Your task to perform on an android device: change the clock display to analog Image 0: 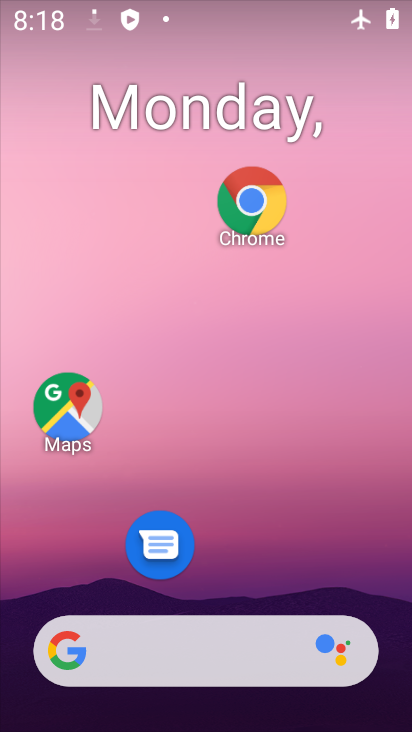
Step 0: drag from (229, 567) to (247, 124)
Your task to perform on an android device: change the clock display to analog Image 1: 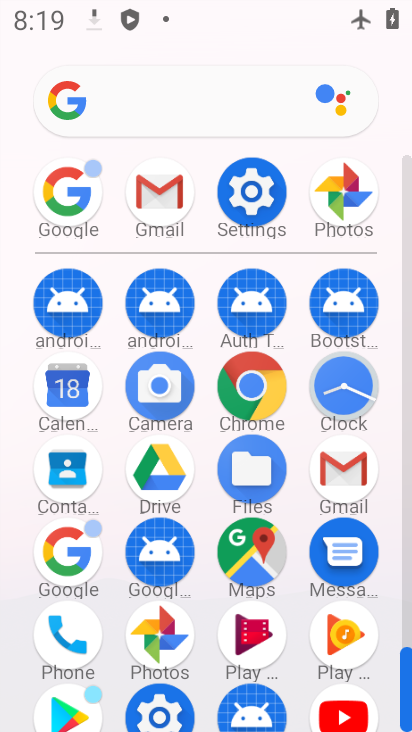
Step 1: click (322, 381)
Your task to perform on an android device: change the clock display to analog Image 2: 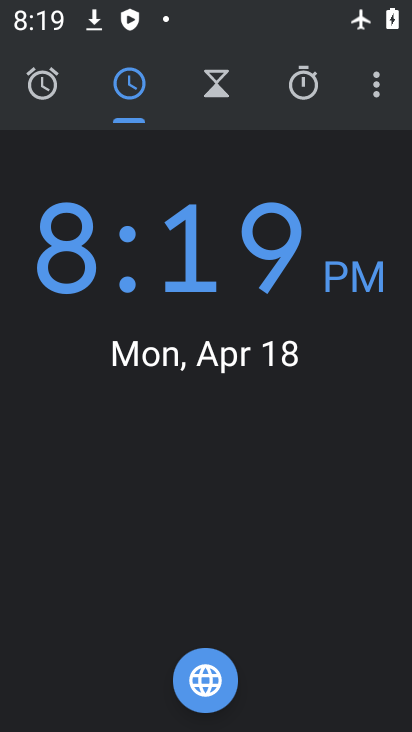
Step 2: click (373, 86)
Your task to perform on an android device: change the clock display to analog Image 3: 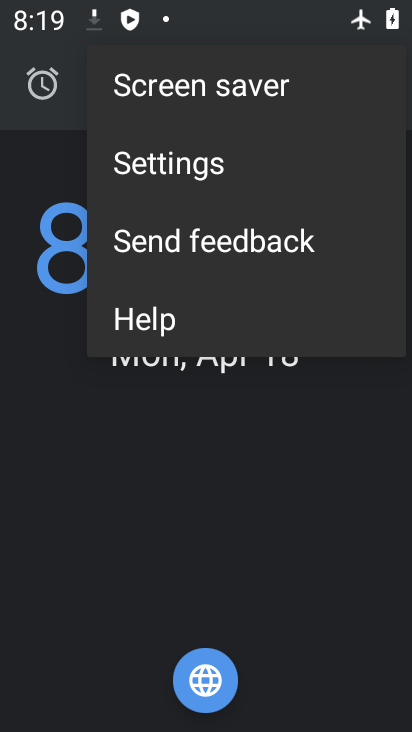
Step 3: click (185, 152)
Your task to perform on an android device: change the clock display to analog Image 4: 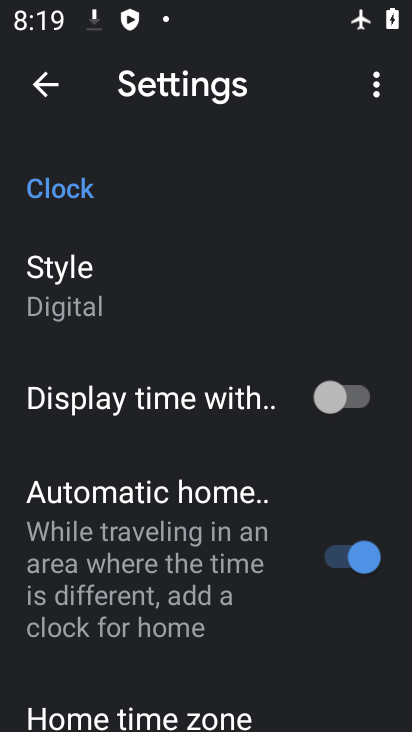
Step 4: click (121, 266)
Your task to perform on an android device: change the clock display to analog Image 5: 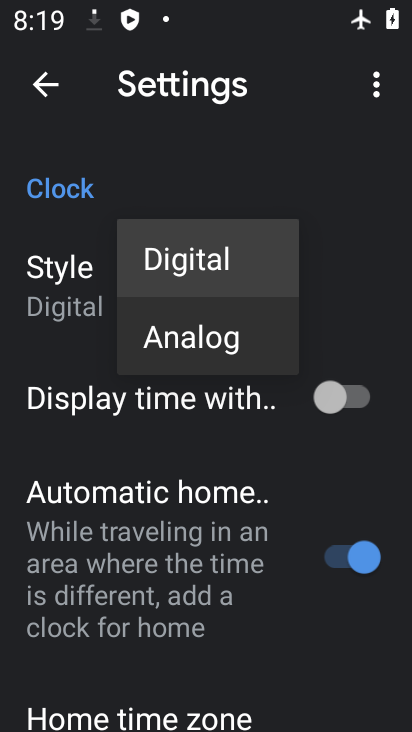
Step 5: click (204, 323)
Your task to perform on an android device: change the clock display to analog Image 6: 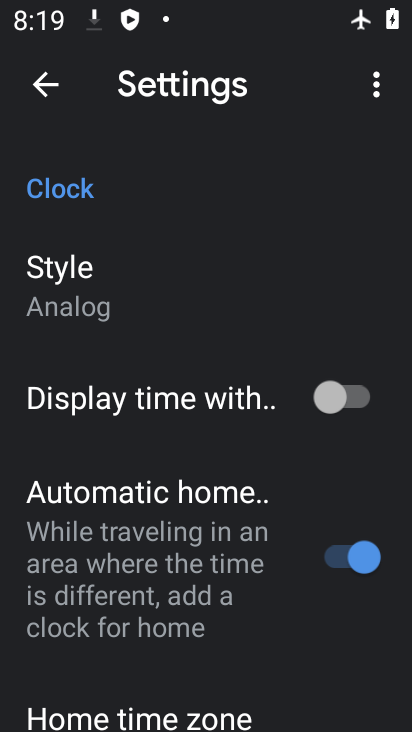
Step 6: task complete